Your task to perform on an android device: change the clock display to analog Image 0: 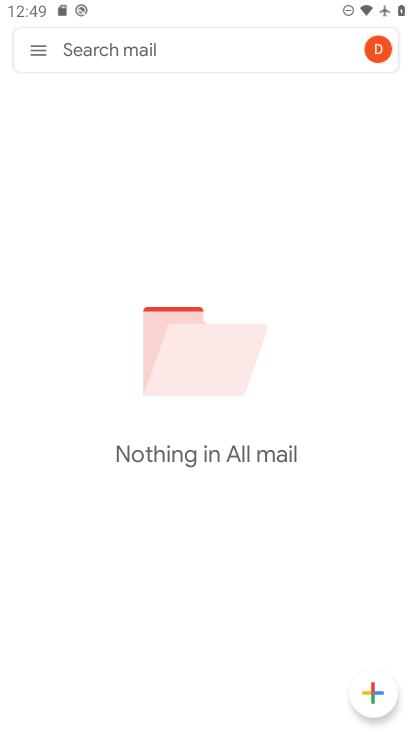
Step 0: press back button
Your task to perform on an android device: change the clock display to analog Image 1: 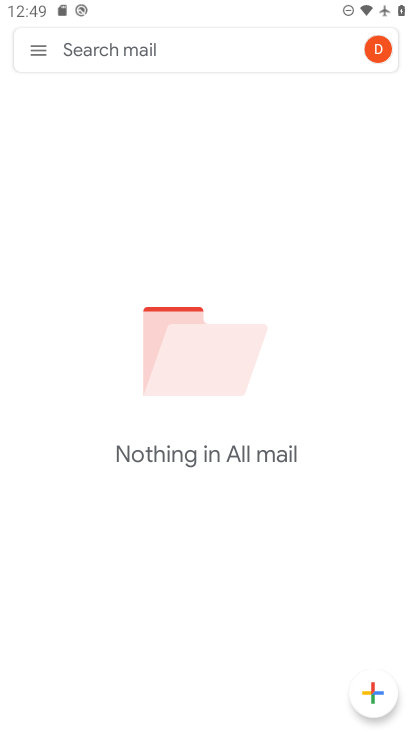
Step 1: press back button
Your task to perform on an android device: change the clock display to analog Image 2: 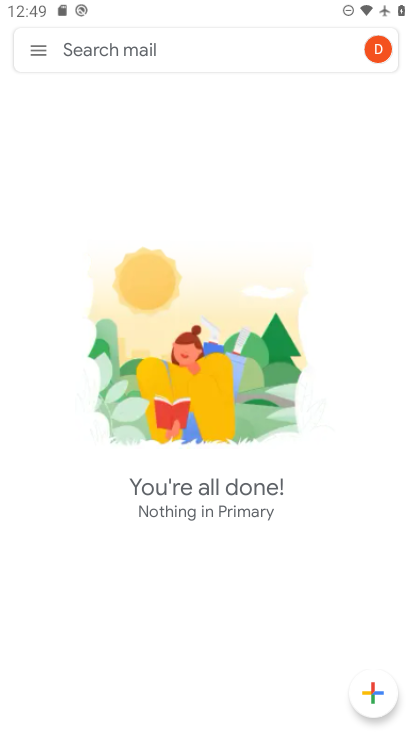
Step 2: press back button
Your task to perform on an android device: change the clock display to analog Image 3: 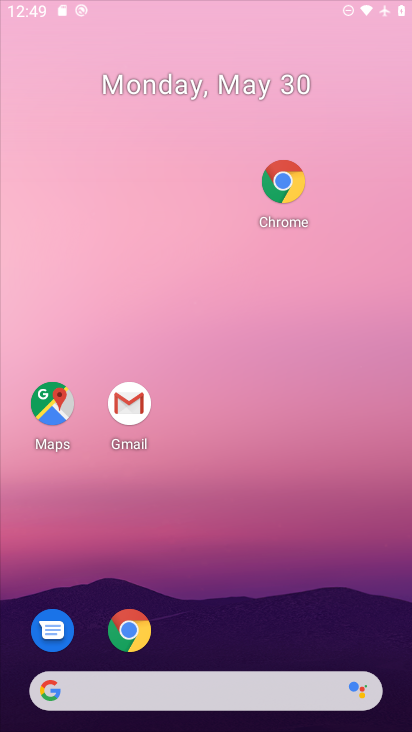
Step 3: press back button
Your task to perform on an android device: change the clock display to analog Image 4: 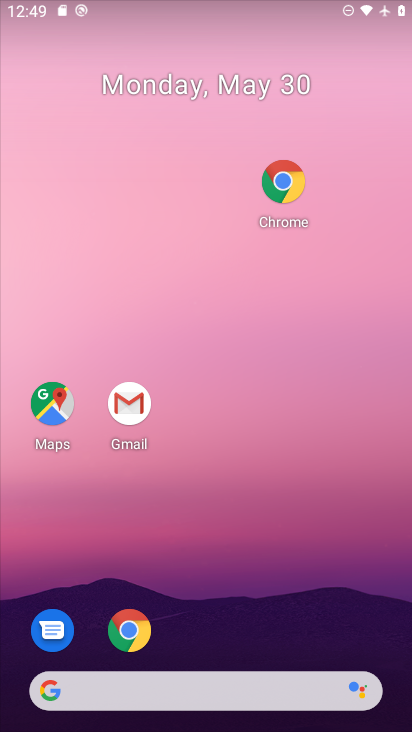
Step 4: press home button
Your task to perform on an android device: change the clock display to analog Image 5: 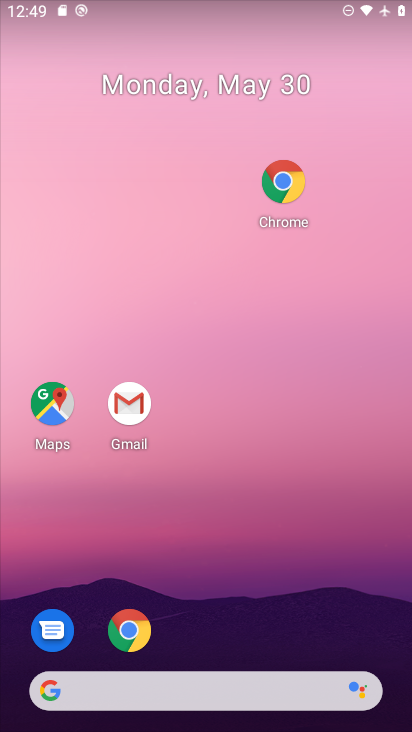
Step 5: drag from (269, 636) to (158, 83)
Your task to perform on an android device: change the clock display to analog Image 6: 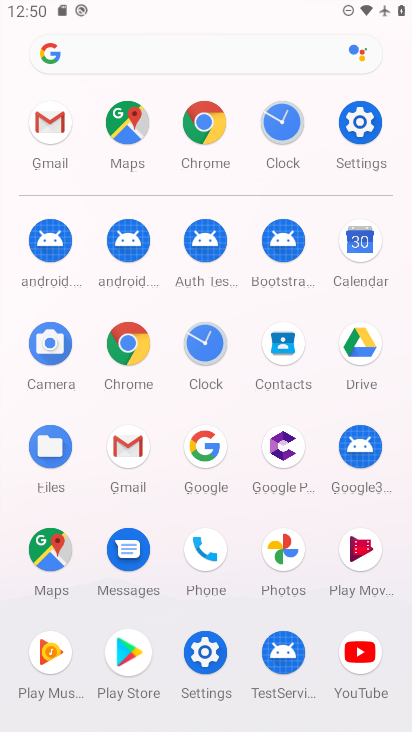
Step 6: click (208, 335)
Your task to perform on an android device: change the clock display to analog Image 7: 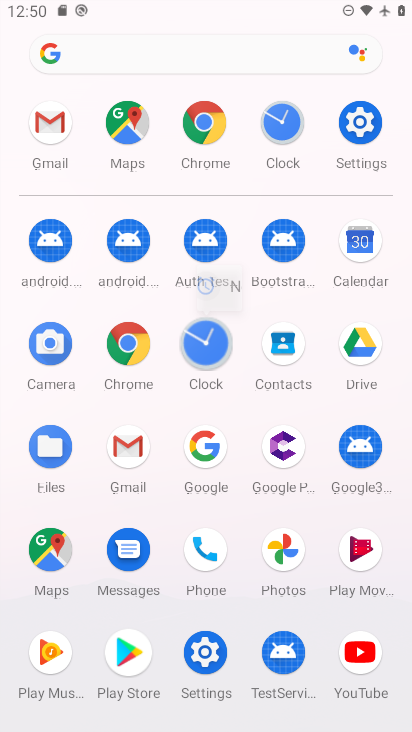
Step 7: click (211, 339)
Your task to perform on an android device: change the clock display to analog Image 8: 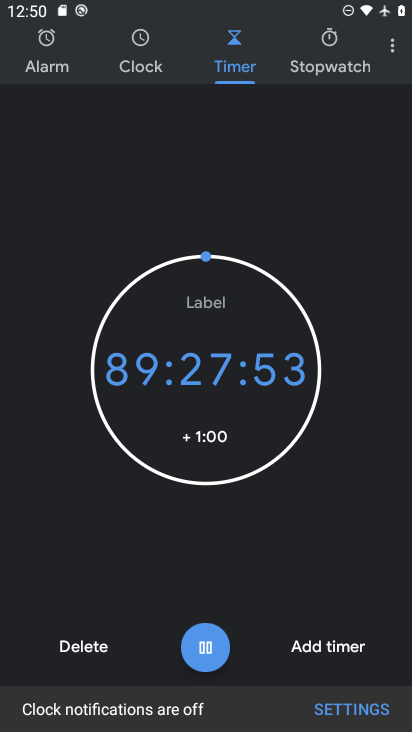
Step 8: click (388, 47)
Your task to perform on an android device: change the clock display to analog Image 9: 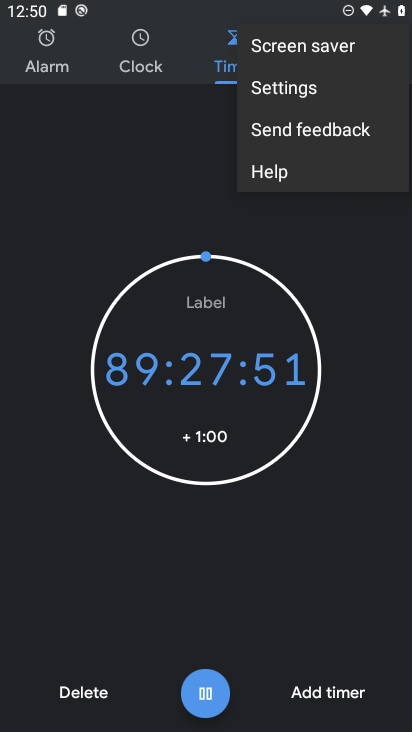
Step 9: click (279, 89)
Your task to perform on an android device: change the clock display to analog Image 10: 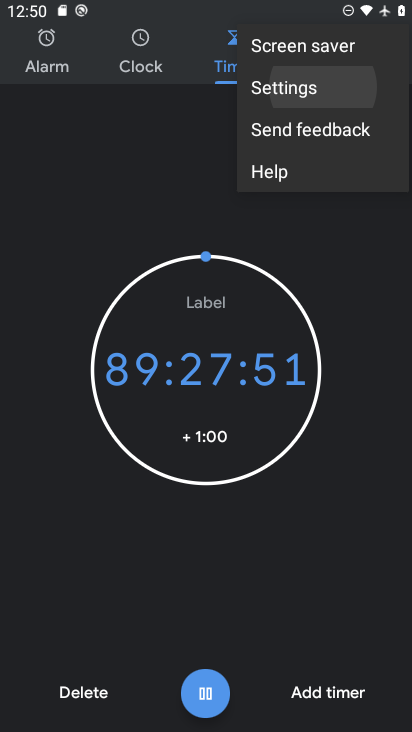
Step 10: click (279, 89)
Your task to perform on an android device: change the clock display to analog Image 11: 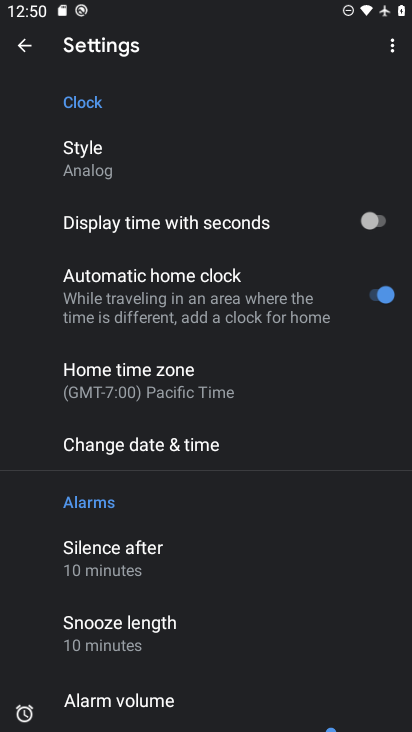
Step 11: click (137, 170)
Your task to perform on an android device: change the clock display to analog Image 12: 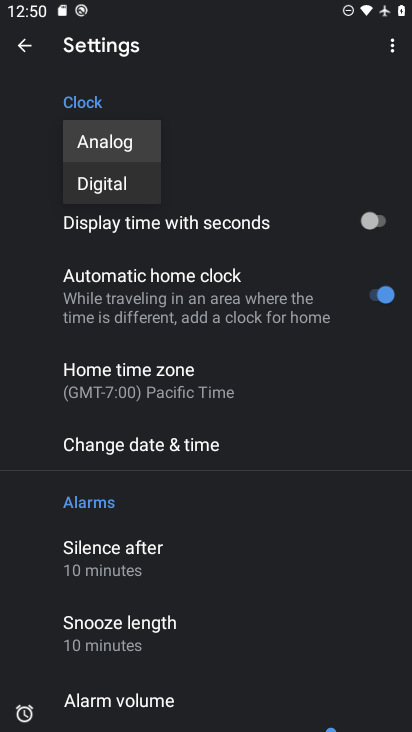
Step 12: click (122, 139)
Your task to perform on an android device: change the clock display to analog Image 13: 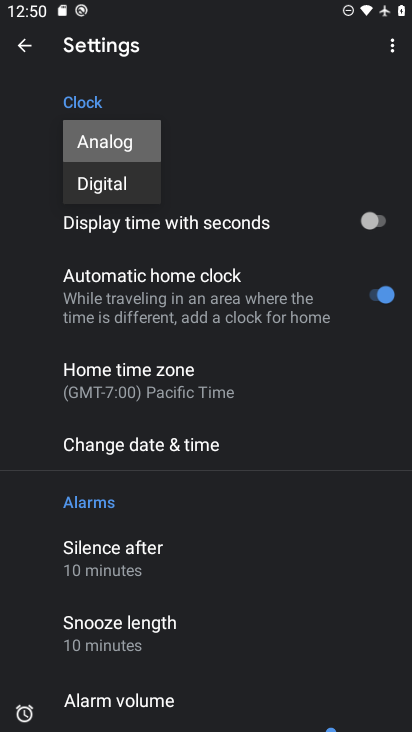
Step 13: click (120, 138)
Your task to perform on an android device: change the clock display to analog Image 14: 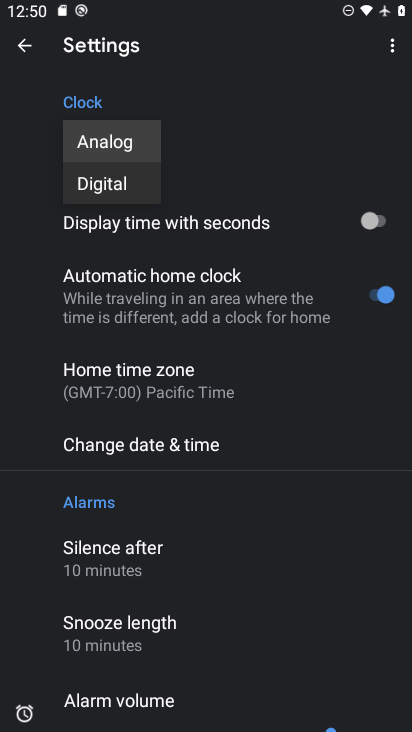
Step 14: click (104, 144)
Your task to perform on an android device: change the clock display to analog Image 15: 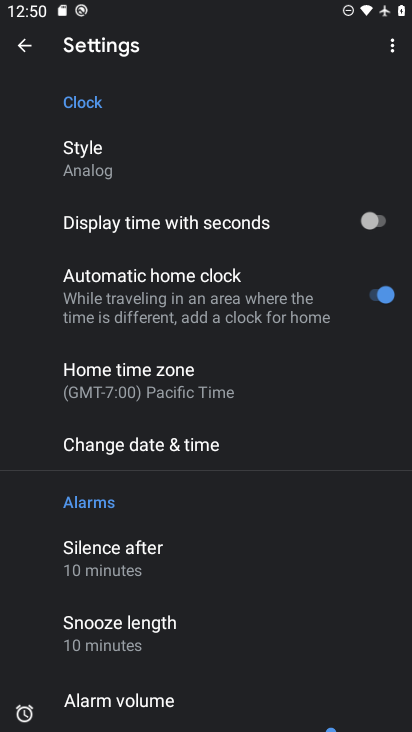
Step 15: task complete